Your task to perform on an android device: Open settings on Google Maps Image 0: 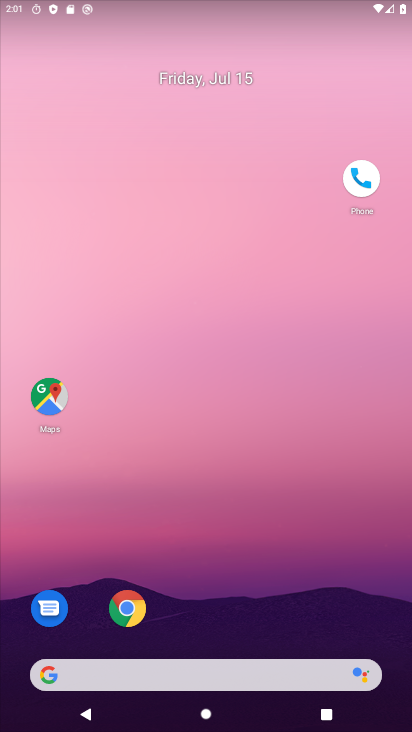
Step 0: drag from (163, 620) to (178, 119)
Your task to perform on an android device: Open settings on Google Maps Image 1: 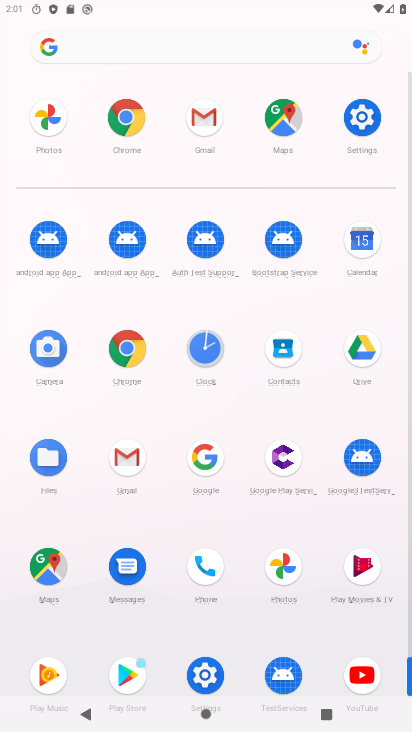
Step 1: click (44, 561)
Your task to perform on an android device: Open settings on Google Maps Image 2: 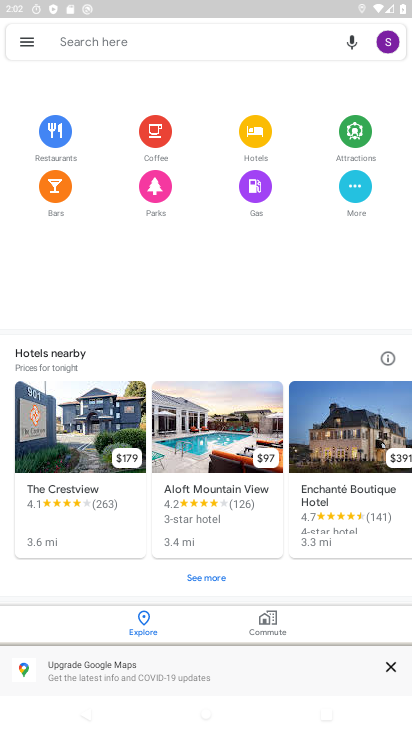
Step 2: drag from (223, 116) to (215, 643)
Your task to perform on an android device: Open settings on Google Maps Image 3: 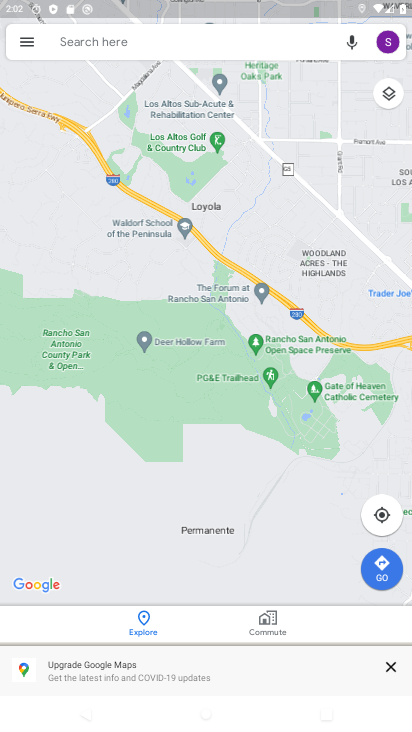
Step 3: click (29, 46)
Your task to perform on an android device: Open settings on Google Maps Image 4: 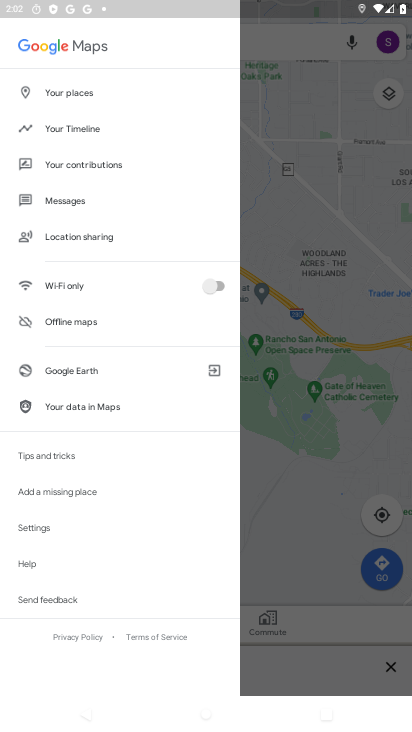
Step 4: click (53, 521)
Your task to perform on an android device: Open settings on Google Maps Image 5: 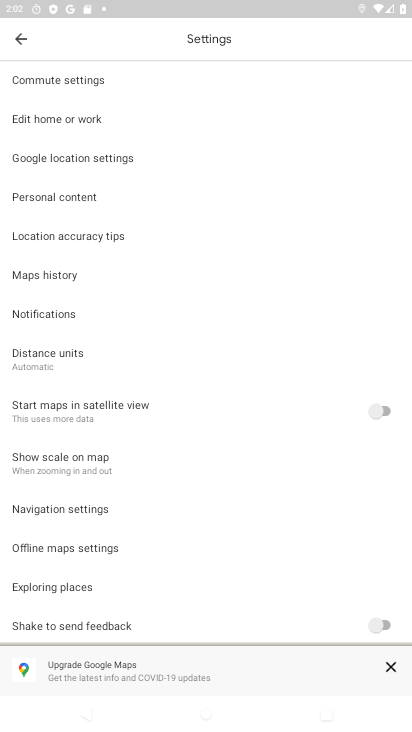
Step 5: task complete